Your task to perform on an android device: delete location history Image 0: 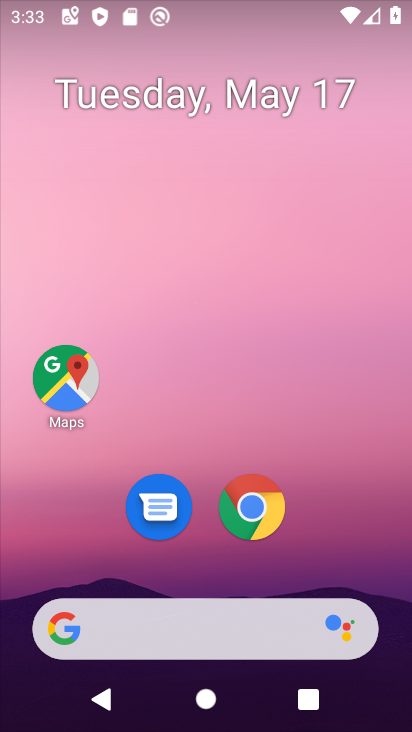
Step 0: drag from (319, 547) to (342, 66)
Your task to perform on an android device: delete location history Image 1: 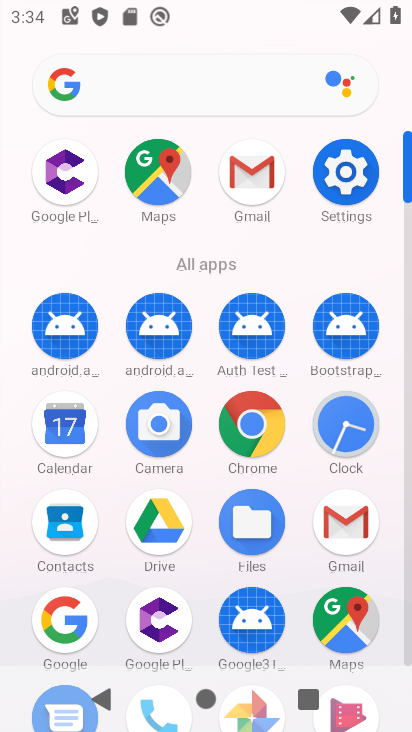
Step 1: click (169, 179)
Your task to perform on an android device: delete location history Image 2: 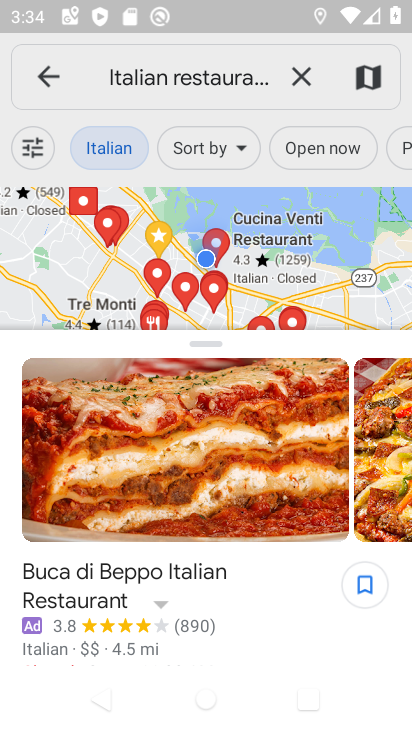
Step 2: click (52, 76)
Your task to perform on an android device: delete location history Image 3: 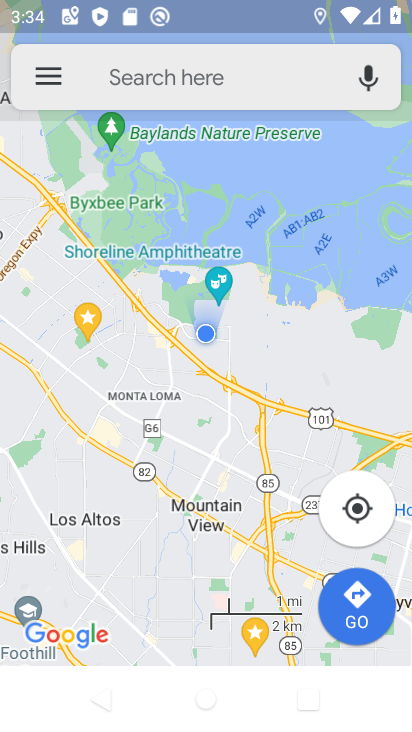
Step 3: click (53, 75)
Your task to perform on an android device: delete location history Image 4: 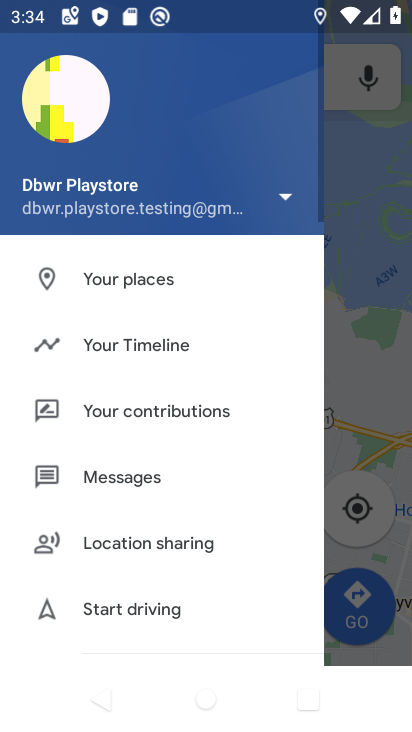
Step 4: drag from (184, 532) to (193, 7)
Your task to perform on an android device: delete location history Image 5: 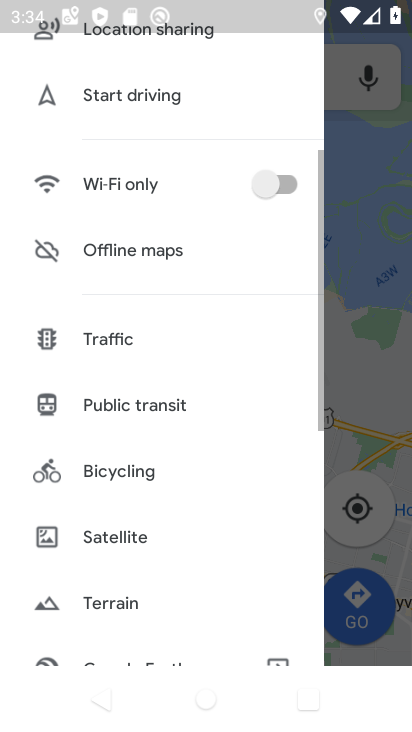
Step 5: drag from (144, 551) to (178, 223)
Your task to perform on an android device: delete location history Image 6: 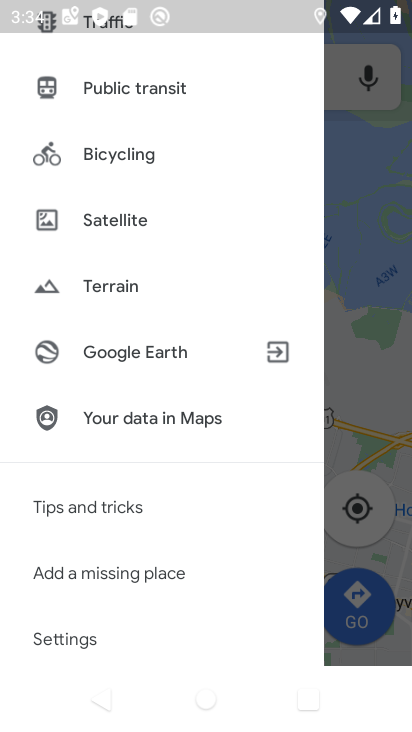
Step 6: click (82, 641)
Your task to perform on an android device: delete location history Image 7: 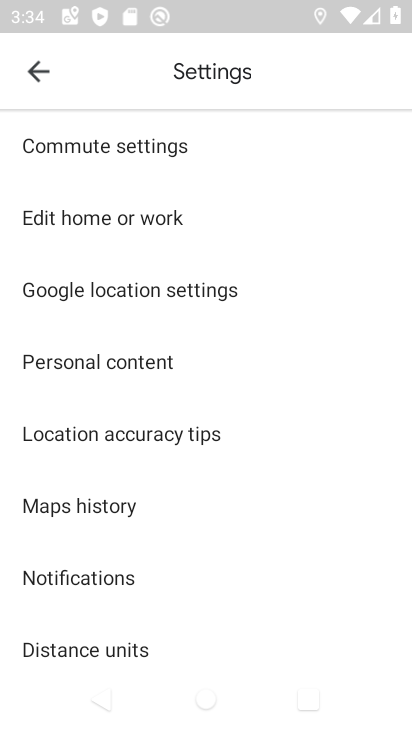
Step 7: click (109, 510)
Your task to perform on an android device: delete location history Image 8: 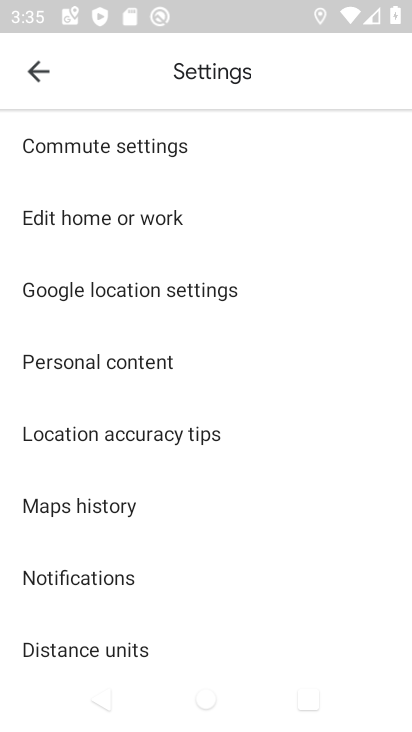
Step 8: click (95, 504)
Your task to perform on an android device: delete location history Image 9: 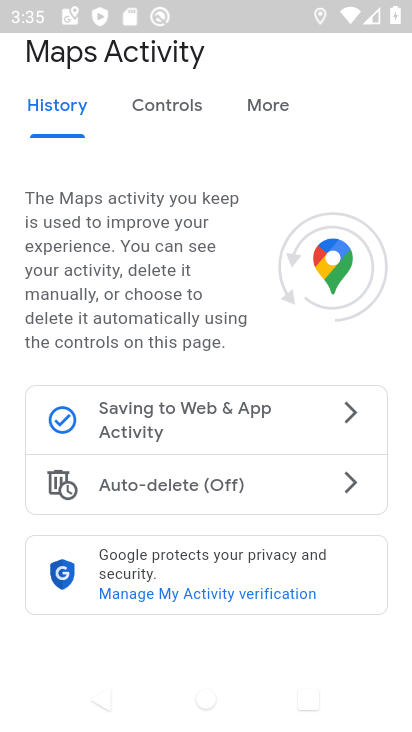
Step 9: drag from (198, 581) to (246, 227)
Your task to perform on an android device: delete location history Image 10: 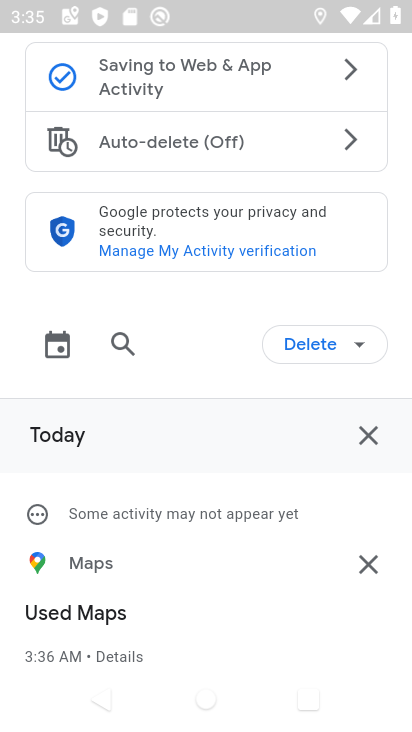
Step 10: click (335, 343)
Your task to perform on an android device: delete location history Image 11: 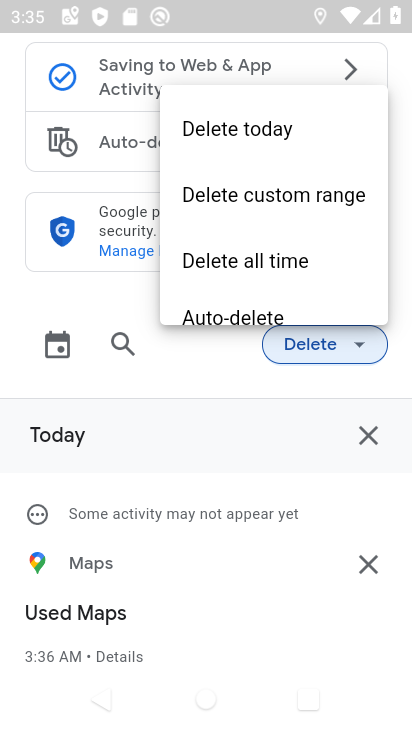
Step 11: click (268, 265)
Your task to perform on an android device: delete location history Image 12: 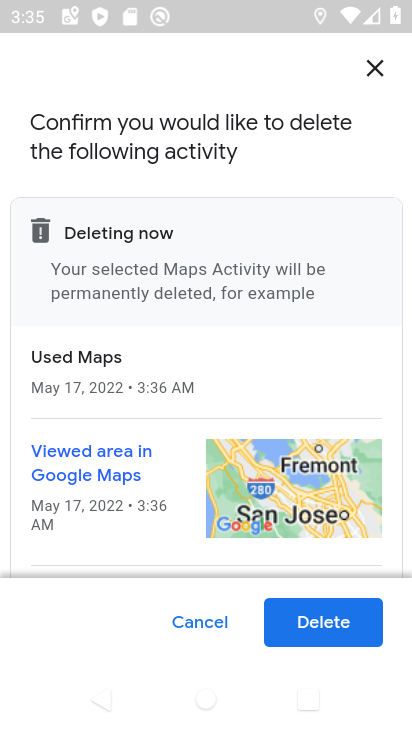
Step 12: click (335, 629)
Your task to perform on an android device: delete location history Image 13: 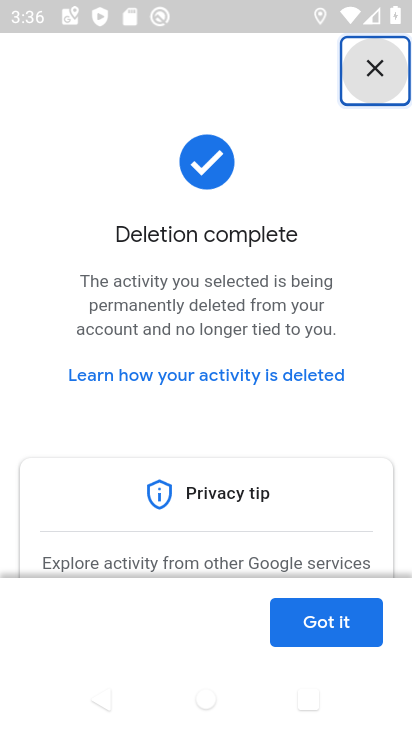
Step 13: click (330, 618)
Your task to perform on an android device: delete location history Image 14: 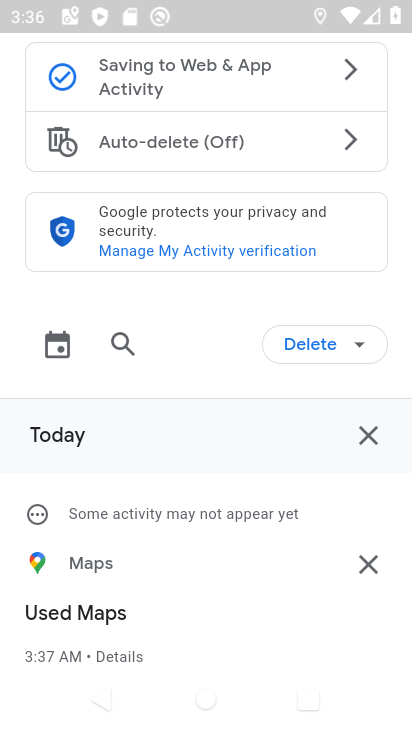
Step 14: task complete